Your task to perform on an android device: change notification settings in the gmail app Image 0: 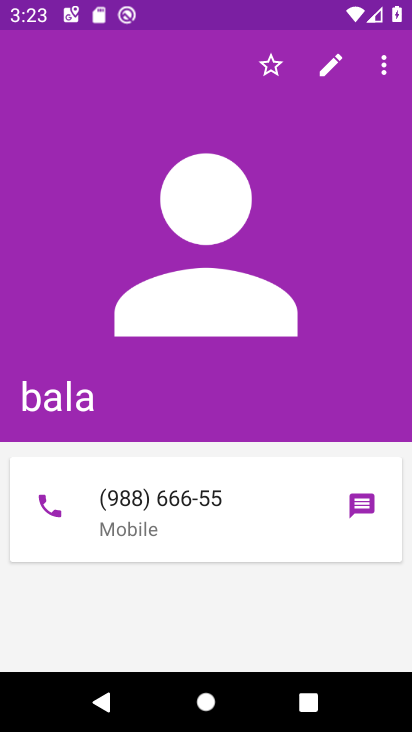
Step 0: press home button
Your task to perform on an android device: change notification settings in the gmail app Image 1: 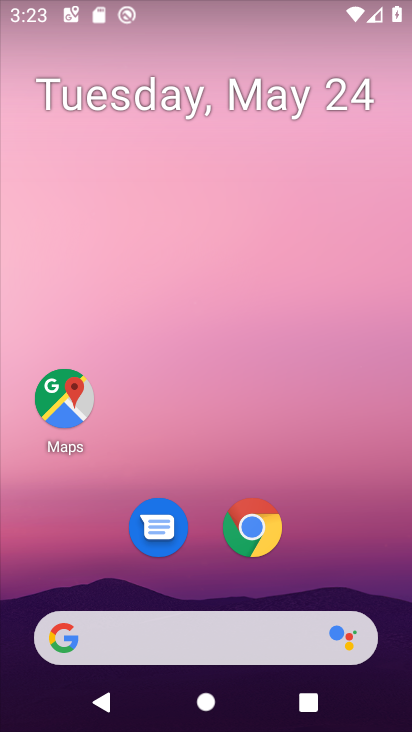
Step 1: drag from (342, 517) to (346, 0)
Your task to perform on an android device: change notification settings in the gmail app Image 2: 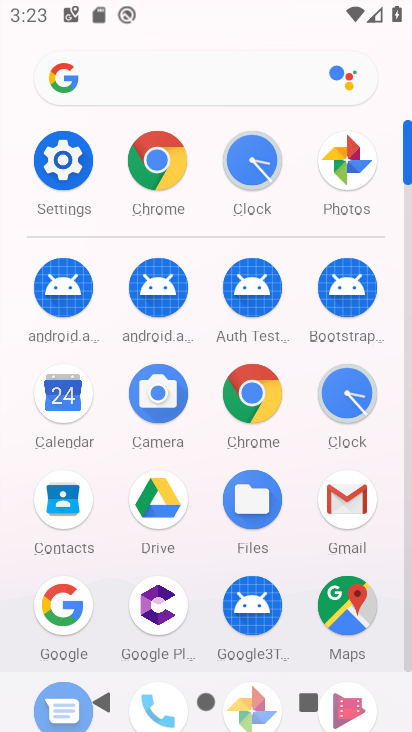
Step 2: click (341, 498)
Your task to perform on an android device: change notification settings in the gmail app Image 3: 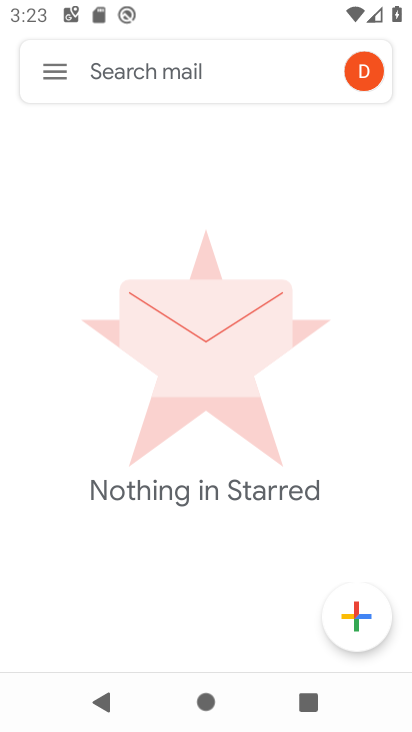
Step 3: click (55, 71)
Your task to perform on an android device: change notification settings in the gmail app Image 4: 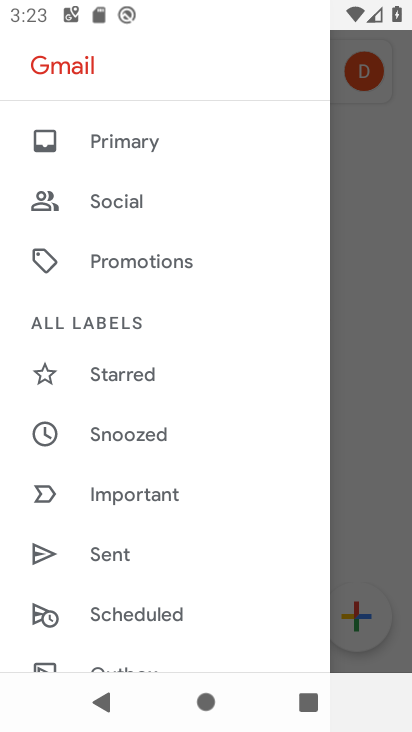
Step 4: drag from (196, 537) to (186, 160)
Your task to perform on an android device: change notification settings in the gmail app Image 5: 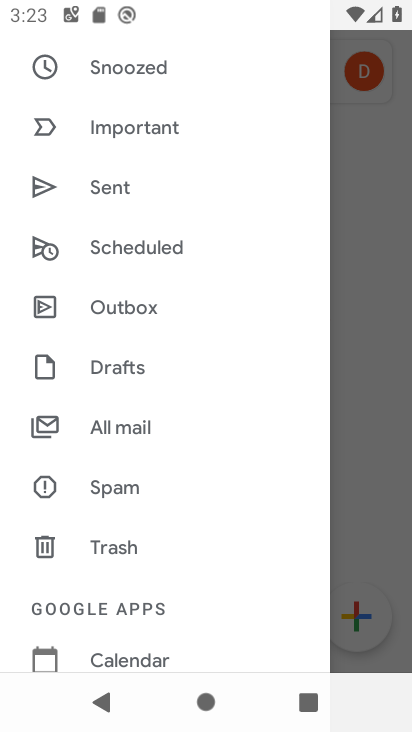
Step 5: drag from (166, 532) to (161, 150)
Your task to perform on an android device: change notification settings in the gmail app Image 6: 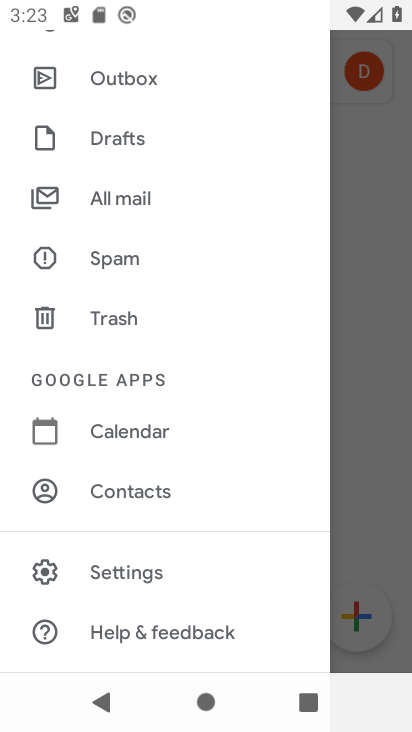
Step 6: click (116, 572)
Your task to perform on an android device: change notification settings in the gmail app Image 7: 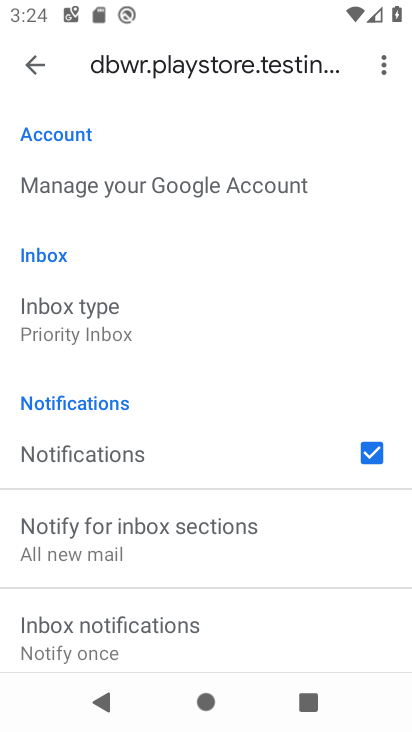
Step 7: click (29, 72)
Your task to perform on an android device: change notification settings in the gmail app Image 8: 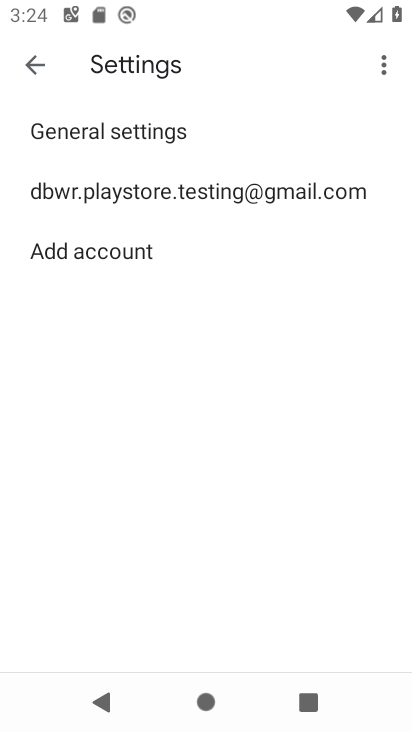
Step 8: click (60, 121)
Your task to perform on an android device: change notification settings in the gmail app Image 9: 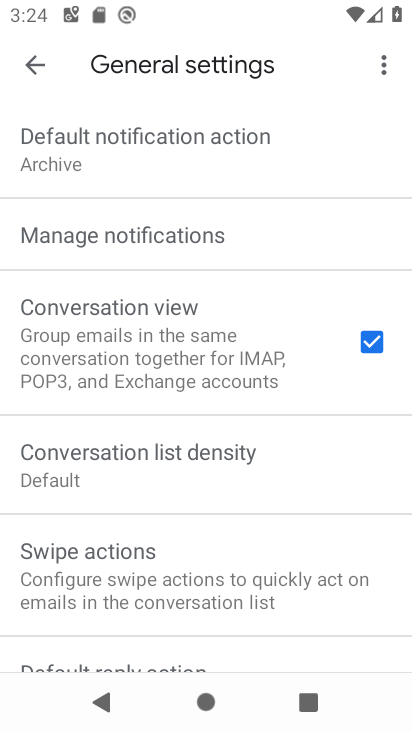
Step 9: click (88, 224)
Your task to perform on an android device: change notification settings in the gmail app Image 10: 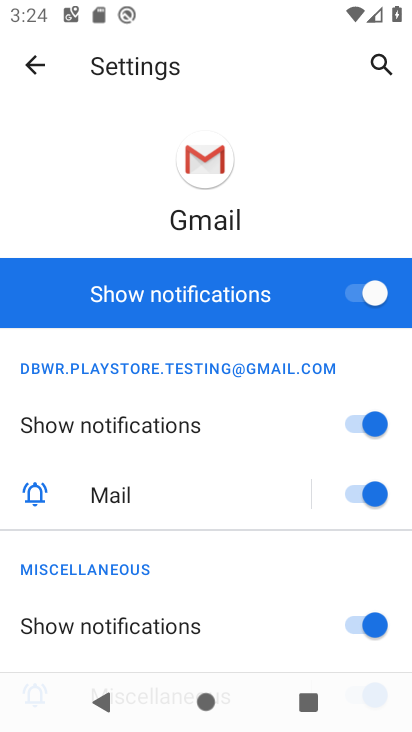
Step 10: click (374, 295)
Your task to perform on an android device: change notification settings in the gmail app Image 11: 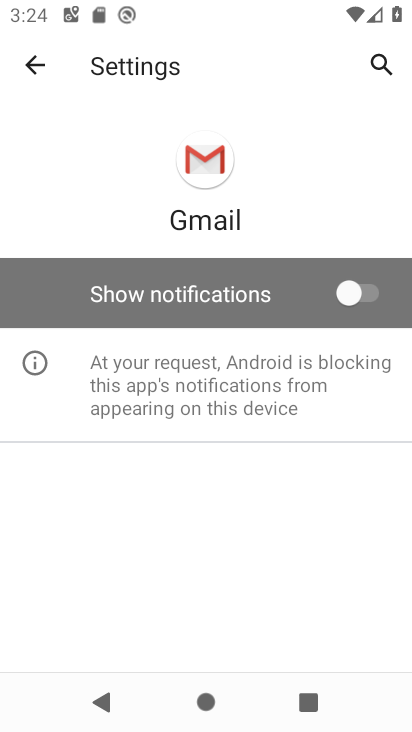
Step 11: task complete